Your task to perform on an android device: uninstall "WhatsApp Messenger" Image 0: 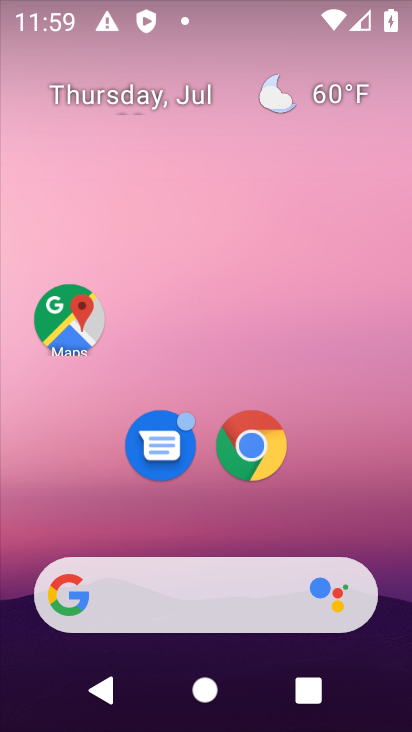
Step 0: click (300, 86)
Your task to perform on an android device: uninstall "WhatsApp Messenger" Image 1: 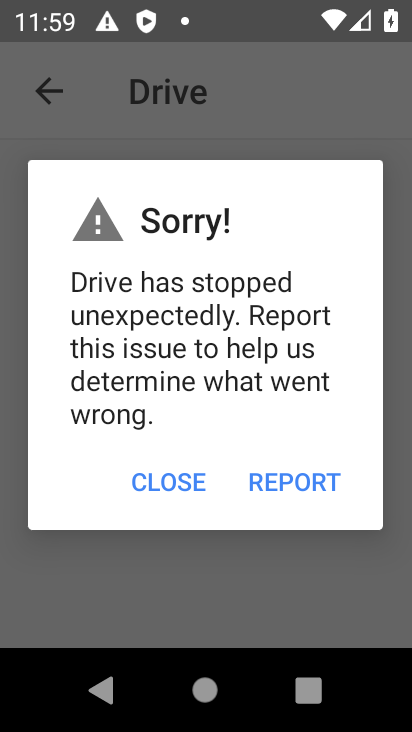
Step 1: press home button
Your task to perform on an android device: uninstall "WhatsApp Messenger" Image 2: 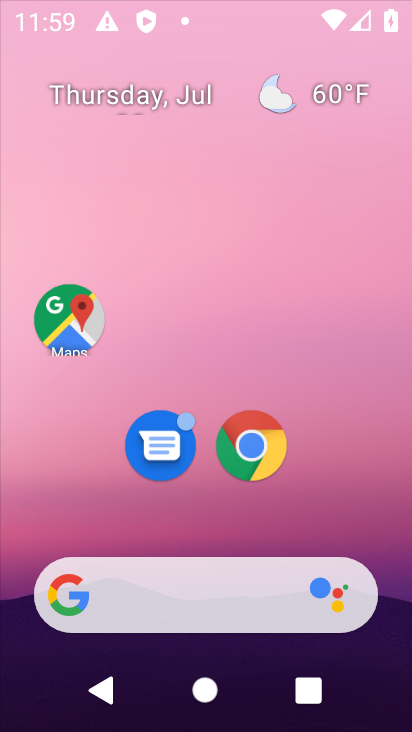
Step 2: drag from (307, 556) to (345, 10)
Your task to perform on an android device: uninstall "WhatsApp Messenger" Image 3: 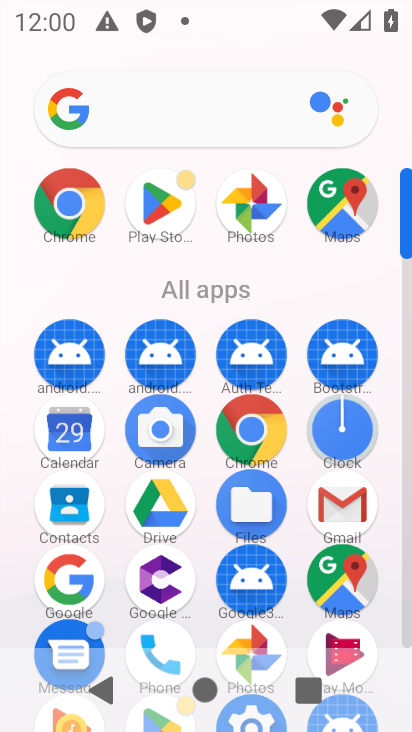
Step 3: click (402, 626)
Your task to perform on an android device: uninstall "WhatsApp Messenger" Image 4: 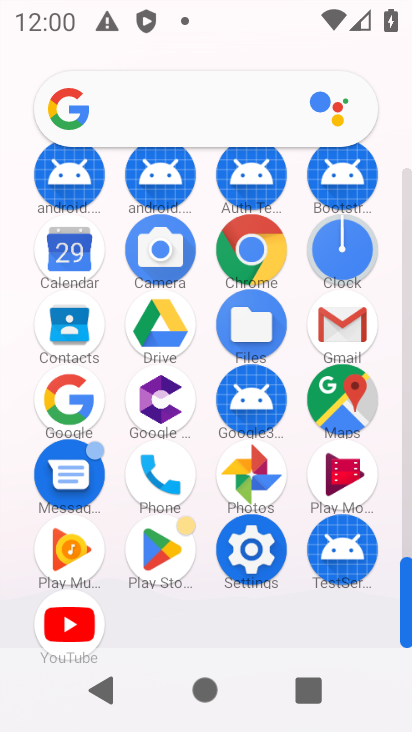
Step 4: click (171, 545)
Your task to perform on an android device: uninstall "WhatsApp Messenger" Image 5: 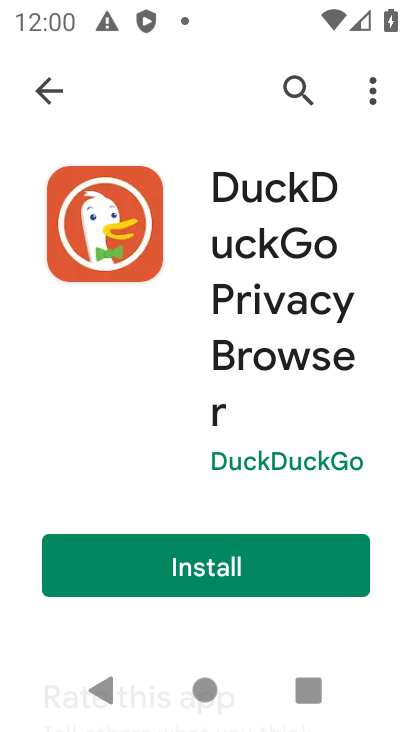
Step 5: click (301, 96)
Your task to perform on an android device: uninstall "WhatsApp Messenger" Image 6: 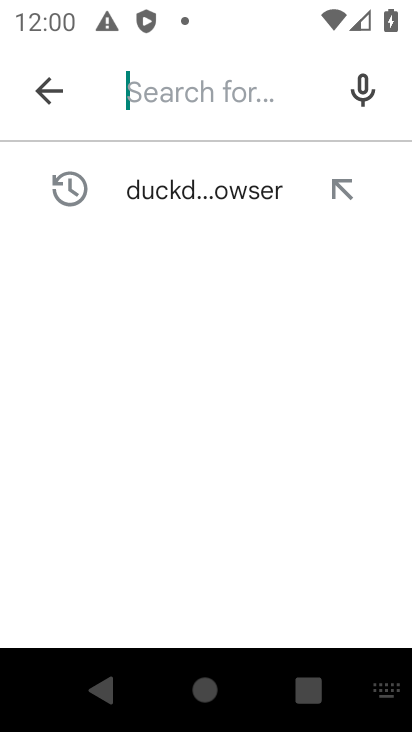
Step 6: type "DuckDuckGo Privacy Browser""
Your task to perform on an android device: uninstall "WhatsApp Messenger" Image 7: 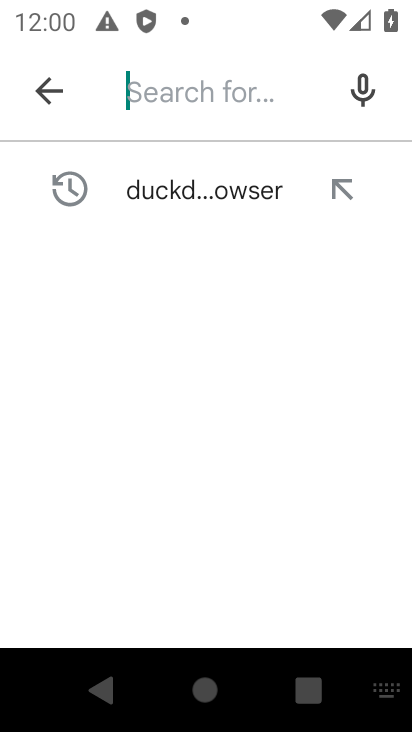
Step 7: type ""
Your task to perform on an android device: uninstall "WhatsApp Messenger" Image 8: 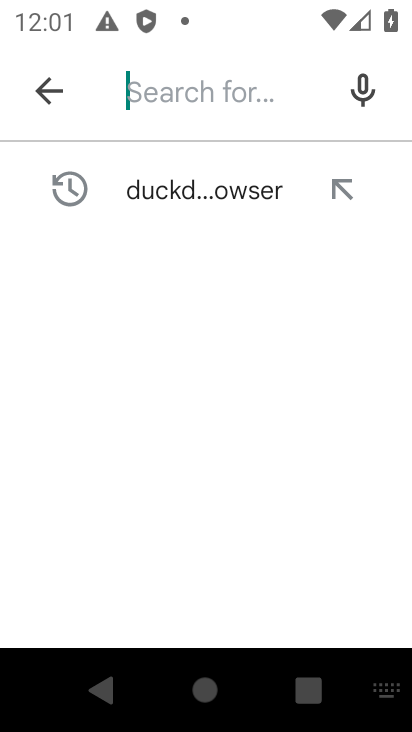
Step 8: type "WhatsApp Messnger"
Your task to perform on an android device: uninstall "WhatsApp Messenger" Image 9: 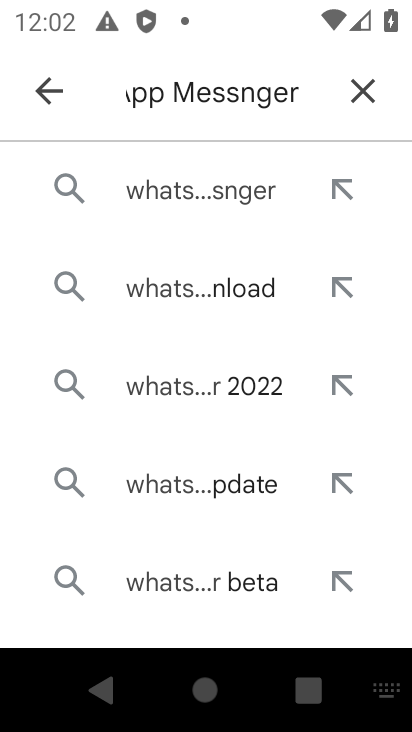
Step 9: click (94, 187)
Your task to perform on an android device: uninstall "WhatsApp Messenger" Image 10: 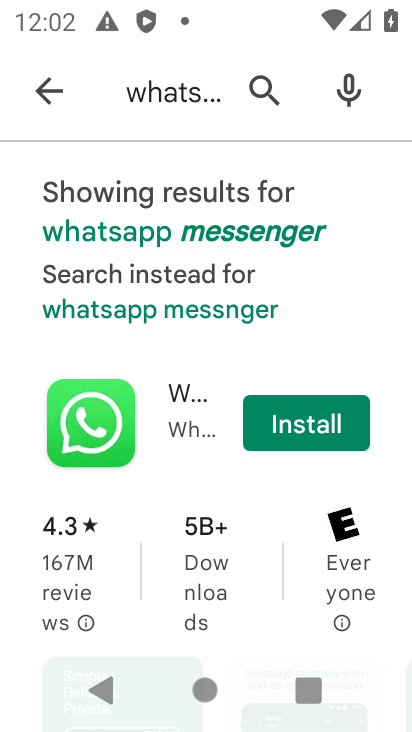
Step 10: drag from (214, 480) to (171, 284)
Your task to perform on an android device: uninstall "WhatsApp Messenger" Image 11: 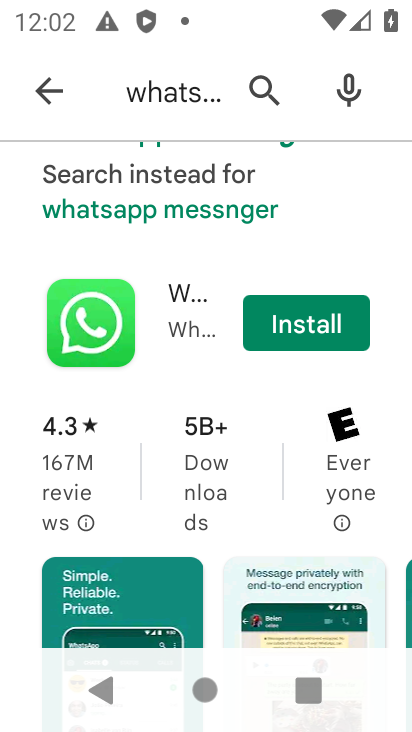
Step 11: click (177, 216)
Your task to perform on an android device: uninstall "WhatsApp Messenger" Image 12: 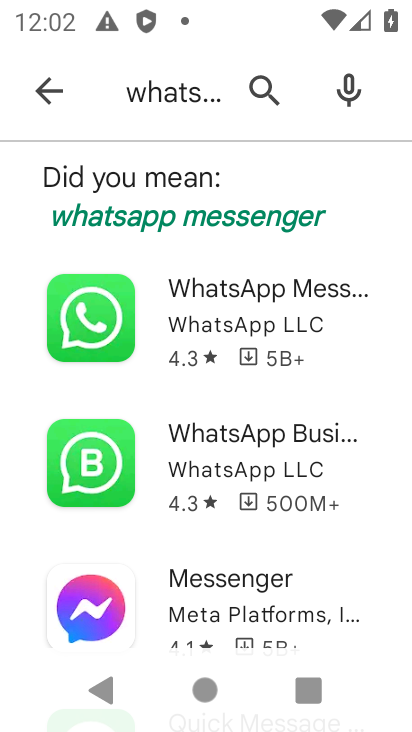
Step 12: click (93, 345)
Your task to perform on an android device: uninstall "WhatsApp Messenger" Image 13: 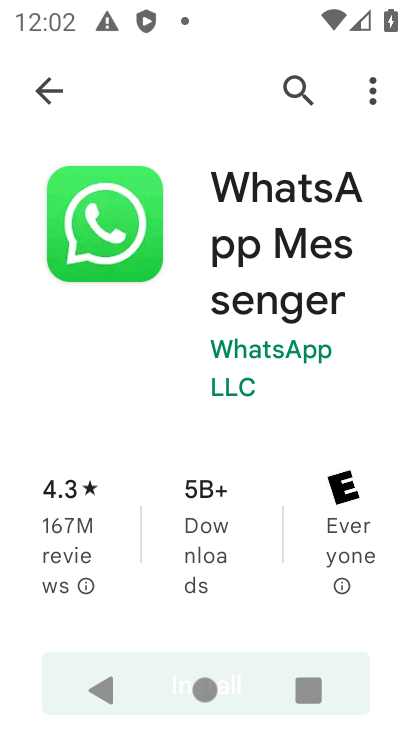
Step 13: drag from (115, 522) to (114, 204)
Your task to perform on an android device: uninstall "WhatsApp Messenger" Image 14: 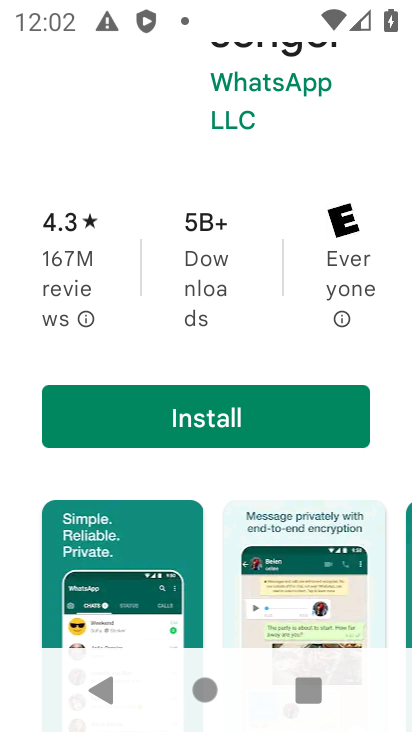
Step 14: click (177, 430)
Your task to perform on an android device: uninstall "WhatsApp Messenger" Image 15: 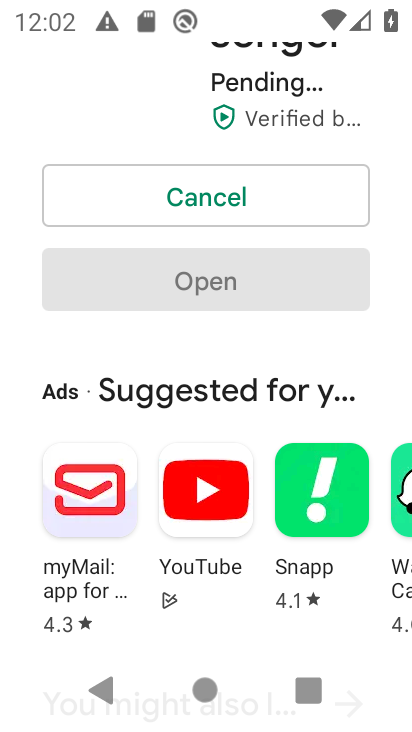
Step 15: click (138, 196)
Your task to perform on an android device: uninstall "WhatsApp Messenger" Image 16: 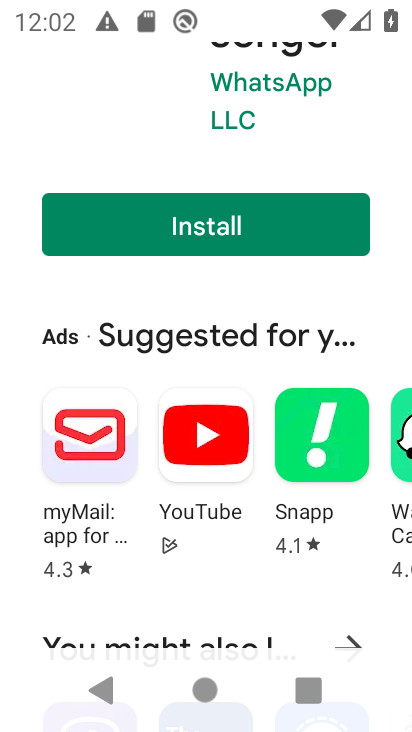
Step 16: task complete